Your task to perform on an android device: turn off data saver in the chrome app Image 0: 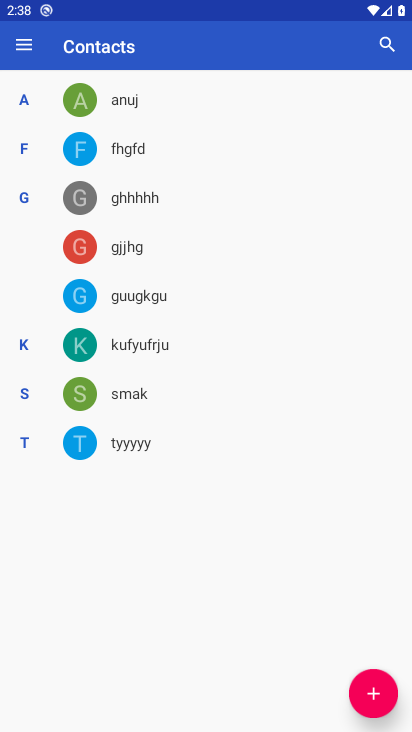
Step 0: press home button
Your task to perform on an android device: turn off data saver in the chrome app Image 1: 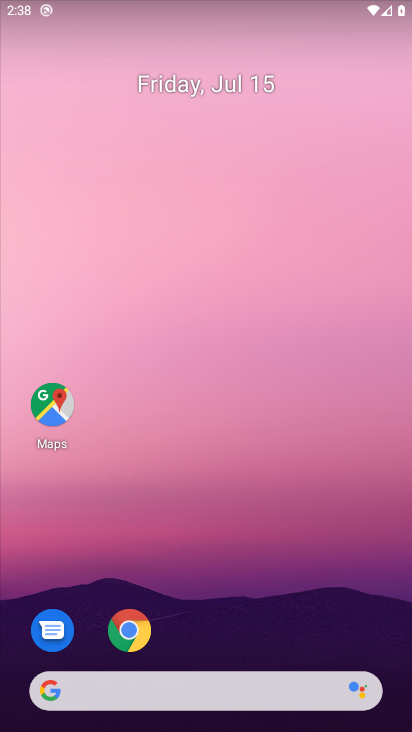
Step 1: click (124, 633)
Your task to perform on an android device: turn off data saver in the chrome app Image 2: 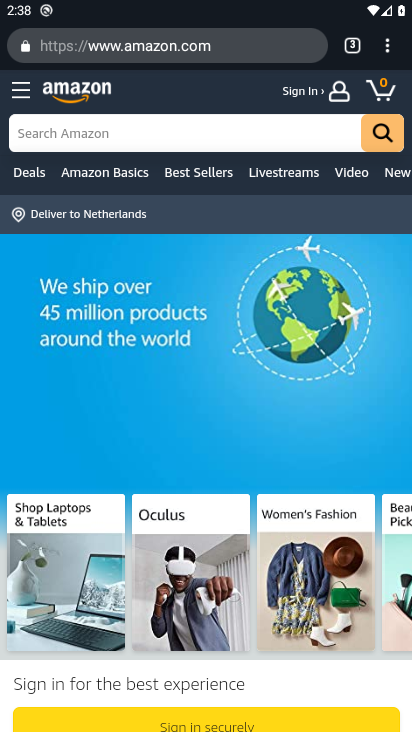
Step 2: drag from (388, 48) to (244, 544)
Your task to perform on an android device: turn off data saver in the chrome app Image 3: 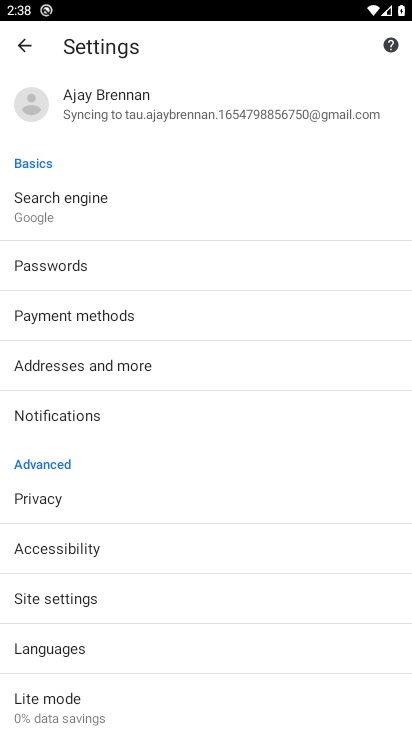
Step 3: click (42, 705)
Your task to perform on an android device: turn off data saver in the chrome app Image 4: 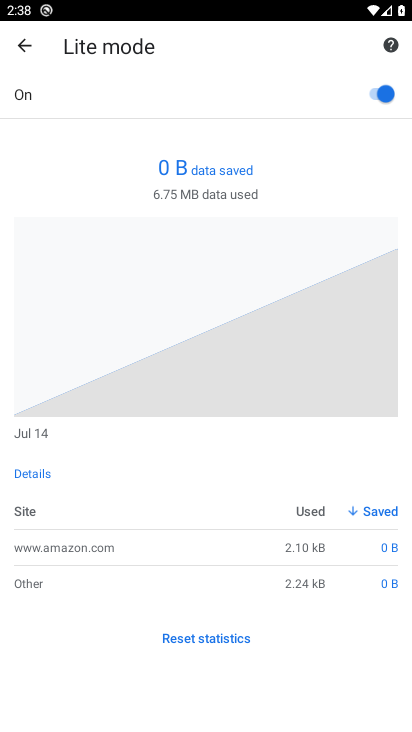
Step 4: click (382, 89)
Your task to perform on an android device: turn off data saver in the chrome app Image 5: 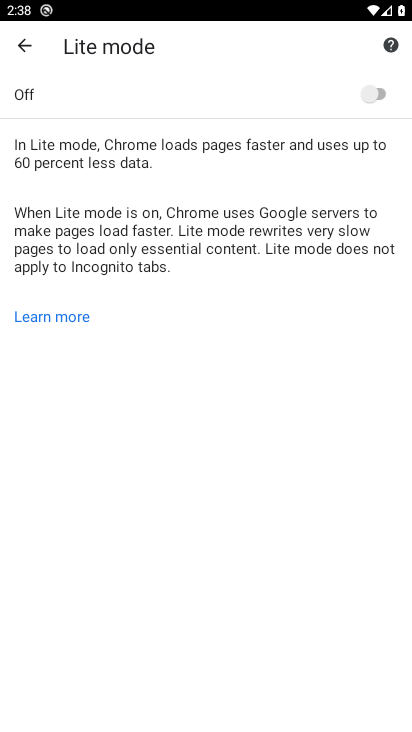
Step 5: task complete